Your task to perform on an android device: open a bookmark in the chrome app Image 0: 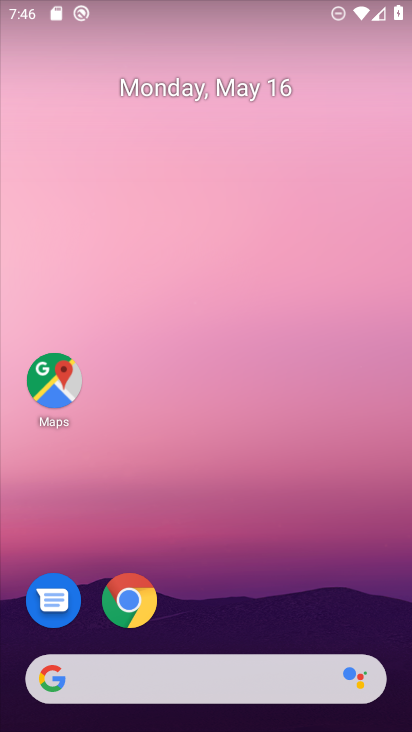
Step 0: click (136, 601)
Your task to perform on an android device: open a bookmark in the chrome app Image 1: 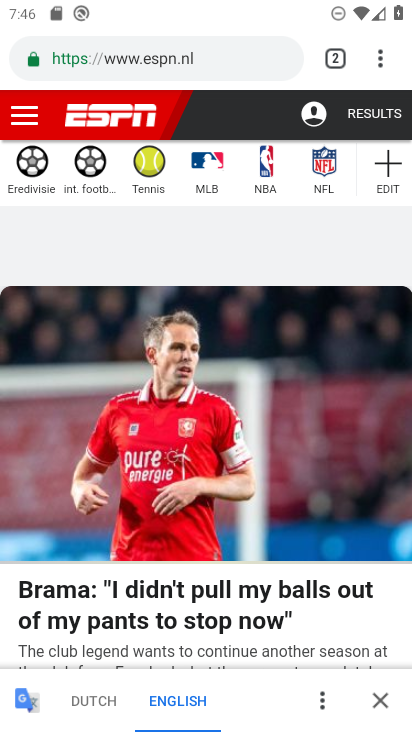
Step 1: task complete